Your task to perform on an android device: toggle notifications settings in the gmail app Image 0: 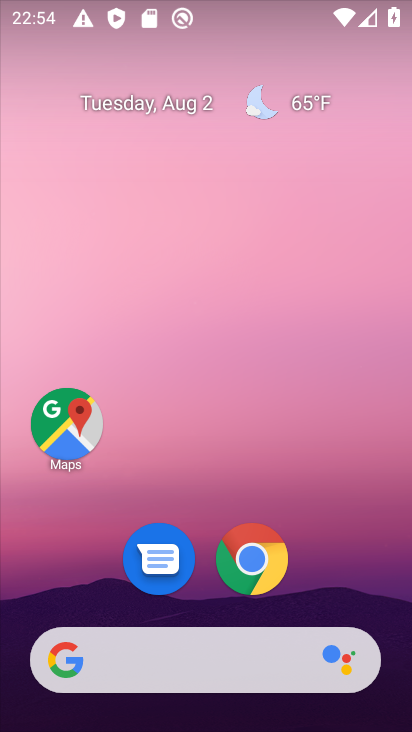
Step 0: drag from (261, 570) to (240, 185)
Your task to perform on an android device: toggle notifications settings in the gmail app Image 1: 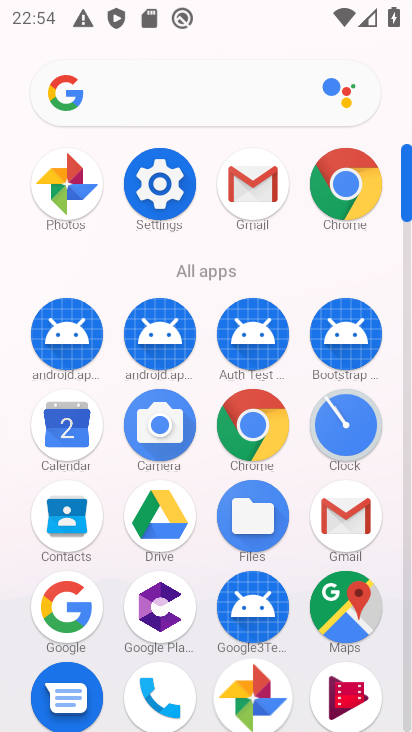
Step 1: click (346, 508)
Your task to perform on an android device: toggle notifications settings in the gmail app Image 2: 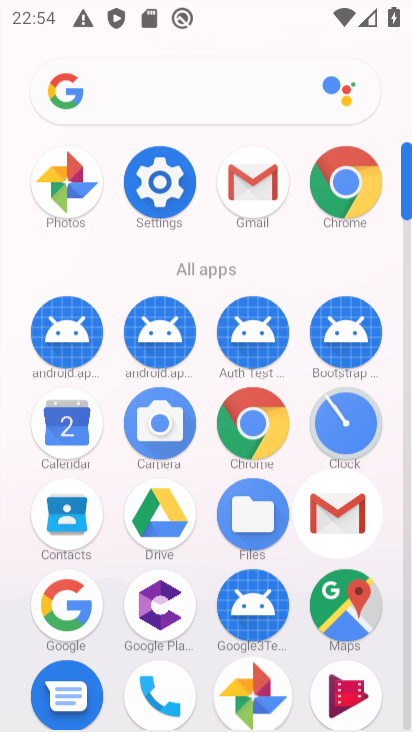
Step 2: click (344, 507)
Your task to perform on an android device: toggle notifications settings in the gmail app Image 3: 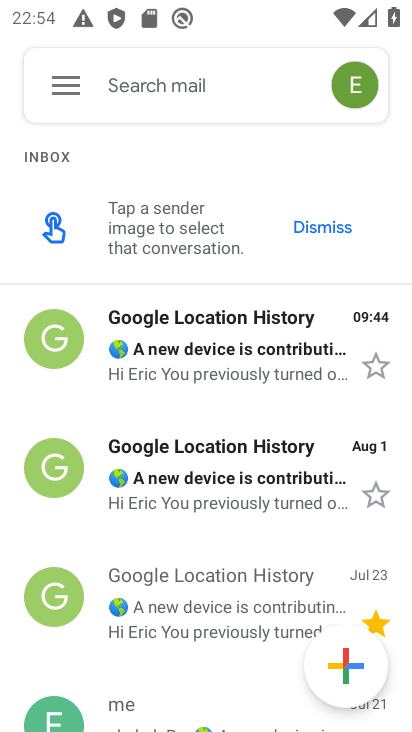
Step 3: click (67, 79)
Your task to perform on an android device: toggle notifications settings in the gmail app Image 4: 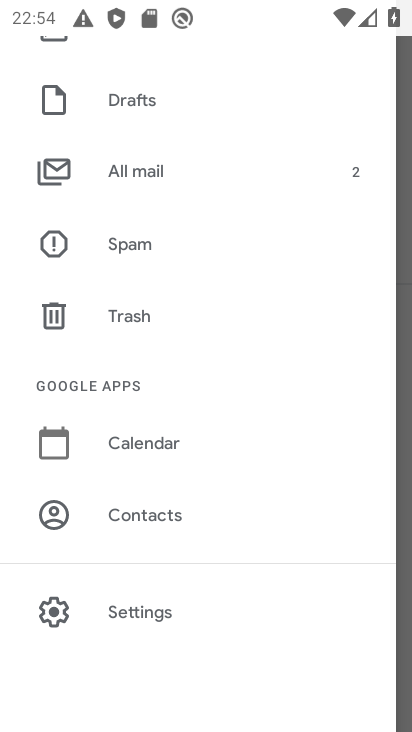
Step 4: drag from (130, 127) to (119, 505)
Your task to perform on an android device: toggle notifications settings in the gmail app Image 5: 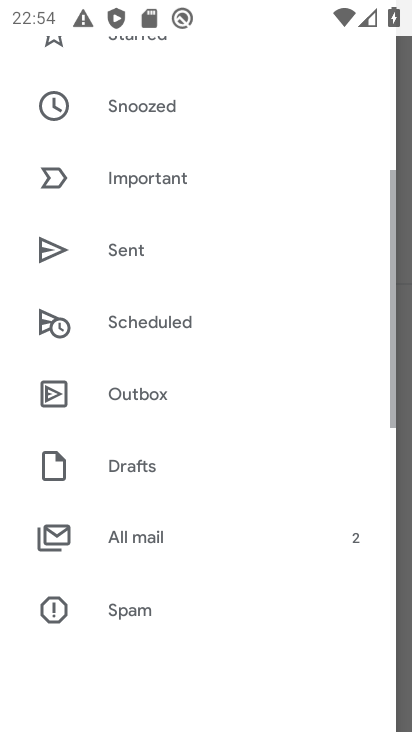
Step 5: drag from (119, 275) to (119, 466)
Your task to perform on an android device: toggle notifications settings in the gmail app Image 6: 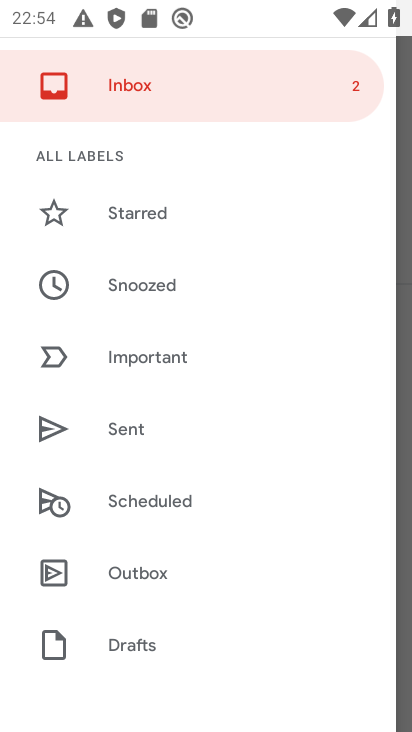
Step 6: drag from (113, 545) to (113, 241)
Your task to perform on an android device: toggle notifications settings in the gmail app Image 7: 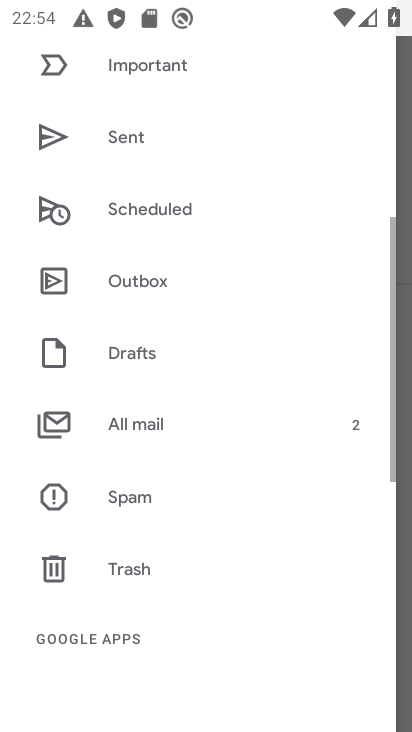
Step 7: drag from (114, 438) to (135, 208)
Your task to perform on an android device: toggle notifications settings in the gmail app Image 8: 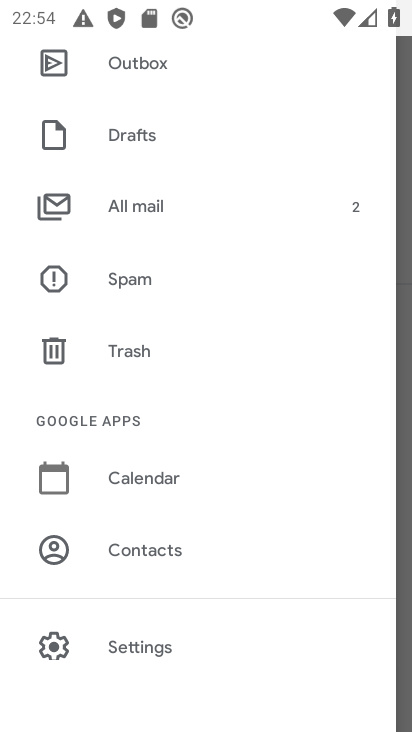
Step 8: click (111, 642)
Your task to perform on an android device: toggle notifications settings in the gmail app Image 9: 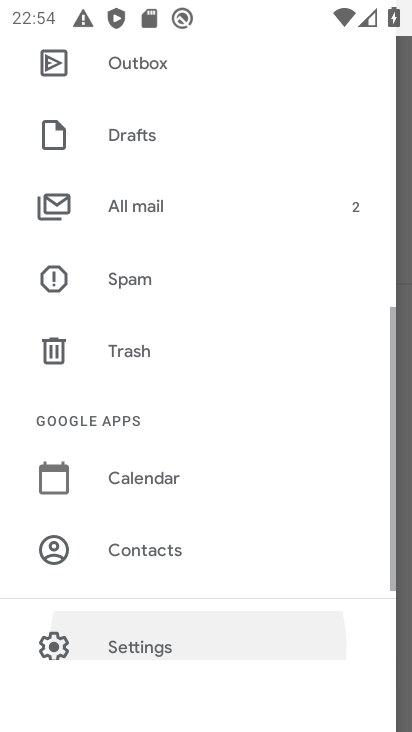
Step 9: click (111, 642)
Your task to perform on an android device: toggle notifications settings in the gmail app Image 10: 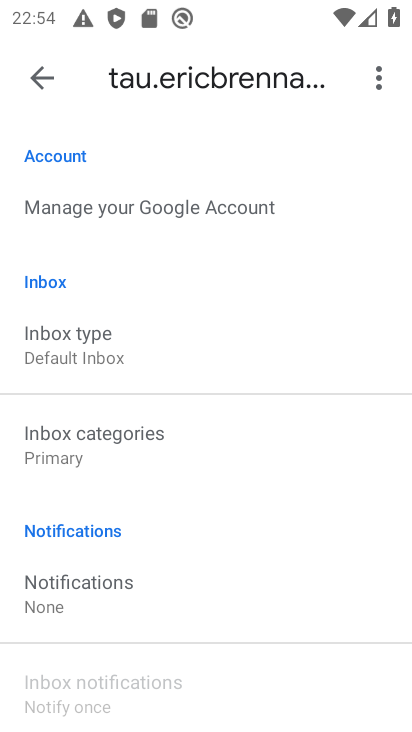
Step 10: drag from (122, 580) to (54, 272)
Your task to perform on an android device: toggle notifications settings in the gmail app Image 11: 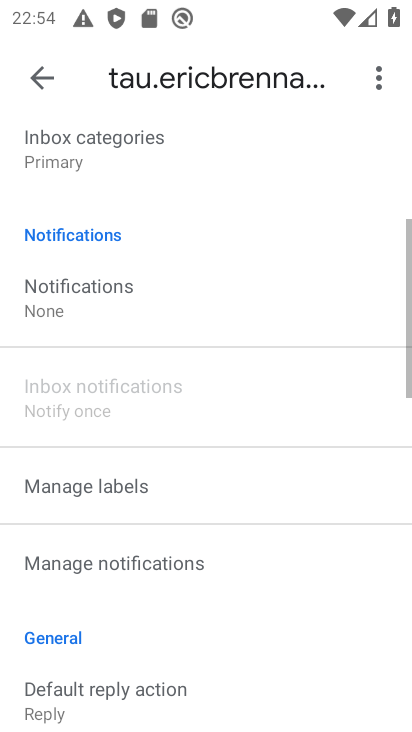
Step 11: click (161, 467)
Your task to perform on an android device: toggle notifications settings in the gmail app Image 12: 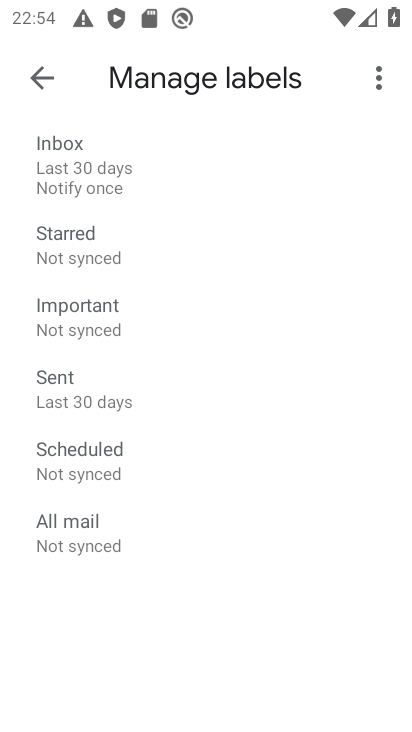
Step 12: click (34, 72)
Your task to perform on an android device: toggle notifications settings in the gmail app Image 13: 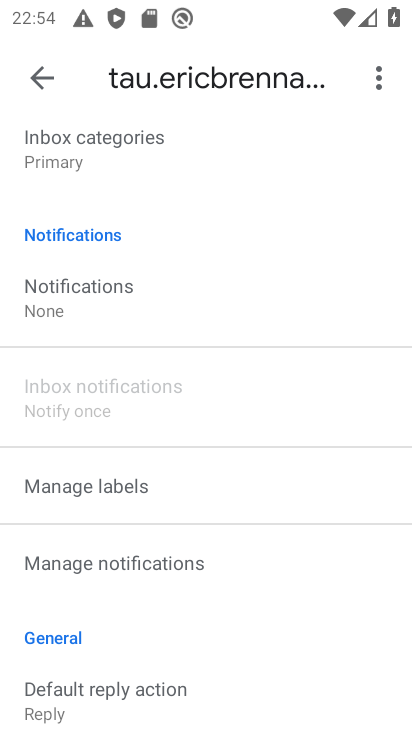
Step 13: click (56, 293)
Your task to perform on an android device: toggle notifications settings in the gmail app Image 14: 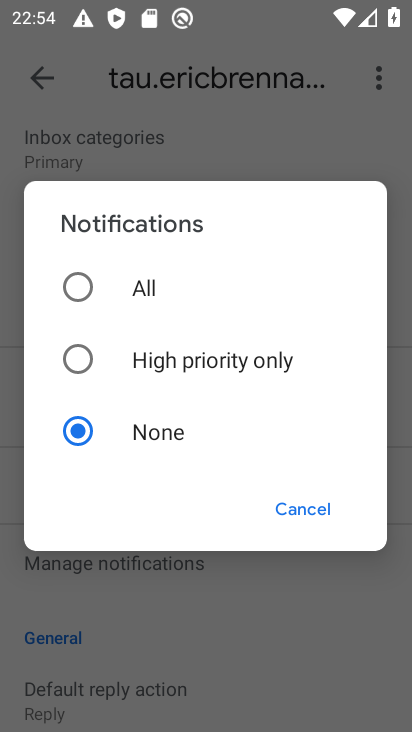
Step 14: click (75, 284)
Your task to perform on an android device: toggle notifications settings in the gmail app Image 15: 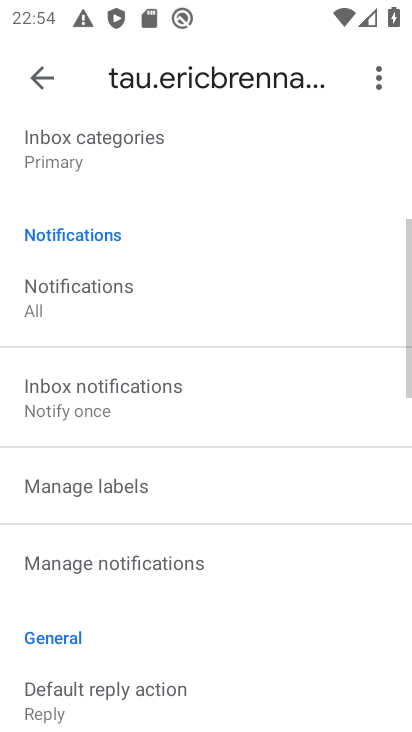
Step 15: task complete